Your task to perform on an android device: change the clock display to show seconds Image 0: 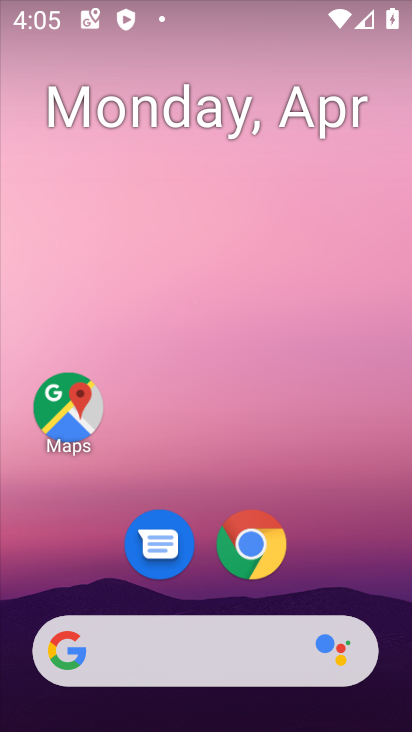
Step 0: drag from (58, 604) to (232, 91)
Your task to perform on an android device: change the clock display to show seconds Image 1: 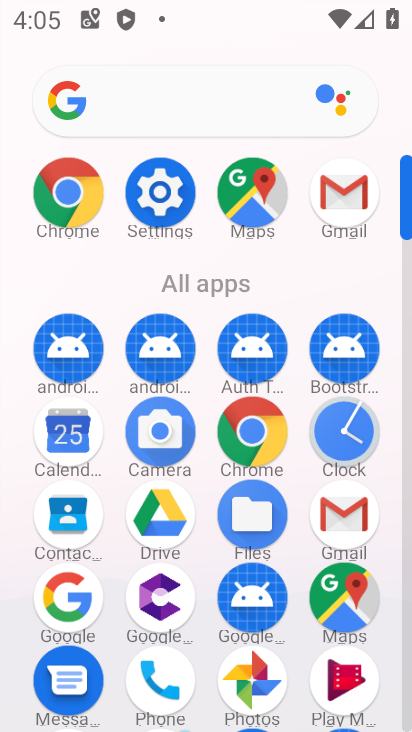
Step 1: click (356, 436)
Your task to perform on an android device: change the clock display to show seconds Image 2: 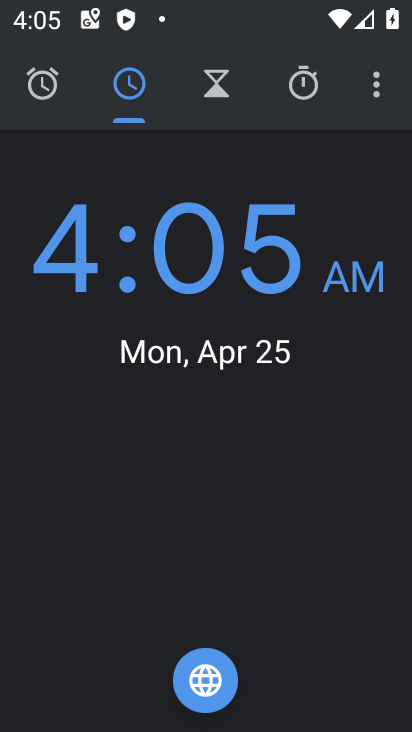
Step 2: click (373, 102)
Your task to perform on an android device: change the clock display to show seconds Image 3: 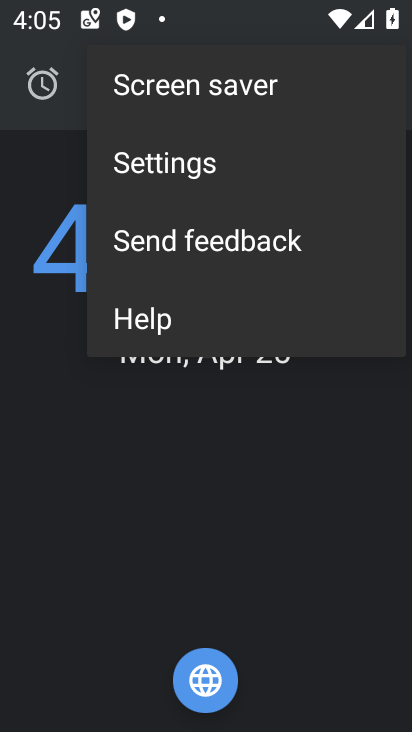
Step 3: click (253, 185)
Your task to perform on an android device: change the clock display to show seconds Image 4: 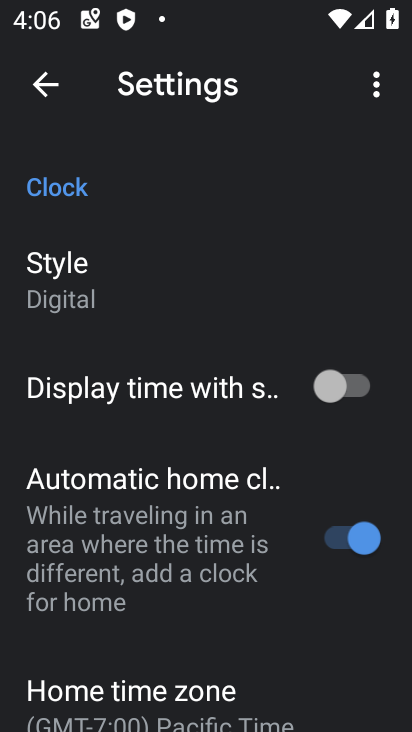
Step 4: click (379, 399)
Your task to perform on an android device: change the clock display to show seconds Image 5: 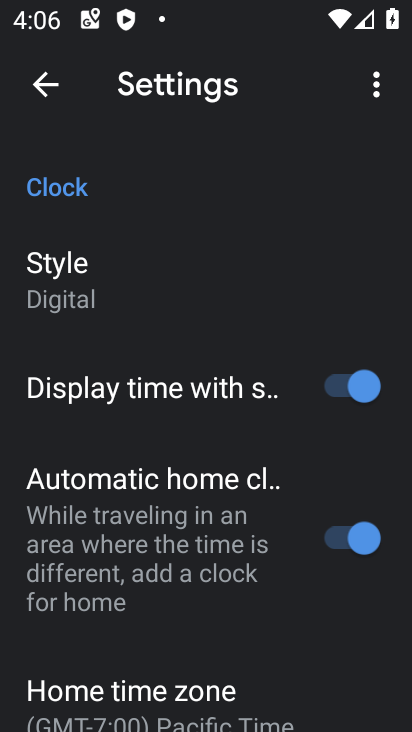
Step 5: task complete